Your task to perform on an android device: Go to privacy settings Image 0: 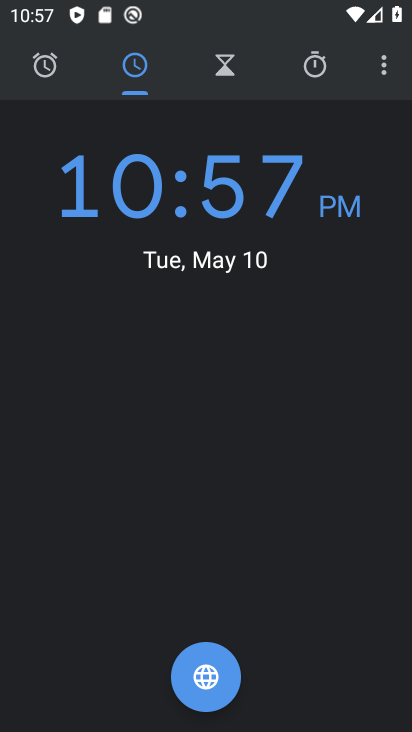
Step 0: press home button
Your task to perform on an android device: Go to privacy settings Image 1: 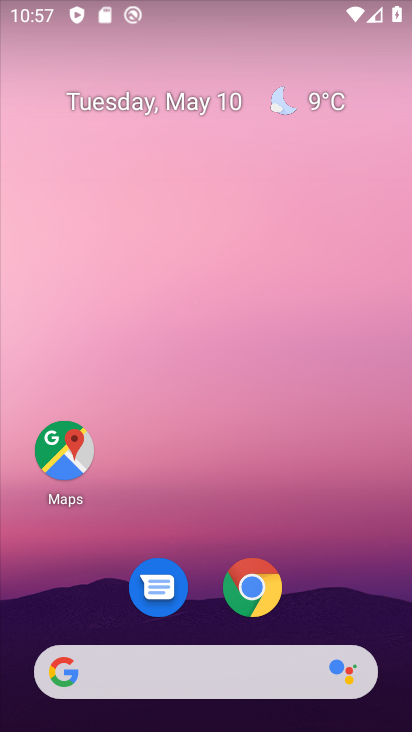
Step 1: drag from (357, 610) to (386, 23)
Your task to perform on an android device: Go to privacy settings Image 2: 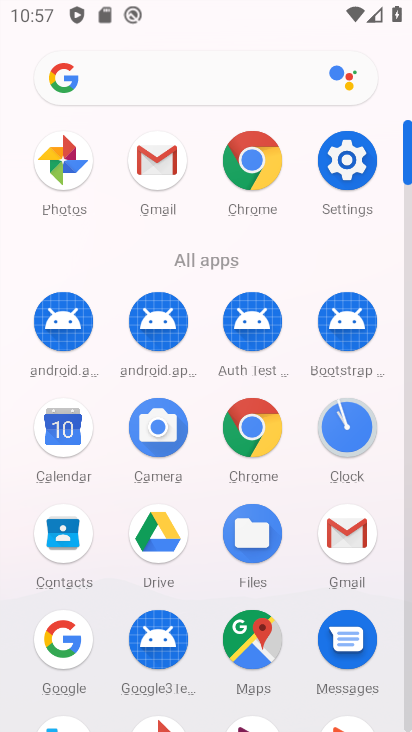
Step 2: click (351, 163)
Your task to perform on an android device: Go to privacy settings Image 3: 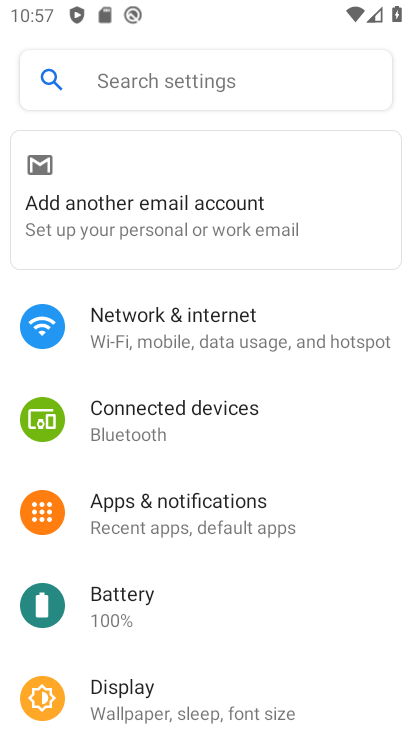
Step 3: drag from (218, 606) to (218, 277)
Your task to perform on an android device: Go to privacy settings Image 4: 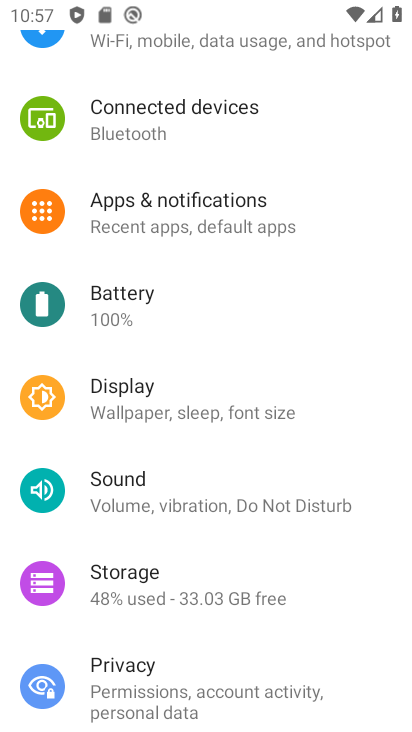
Step 4: click (126, 682)
Your task to perform on an android device: Go to privacy settings Image 5: 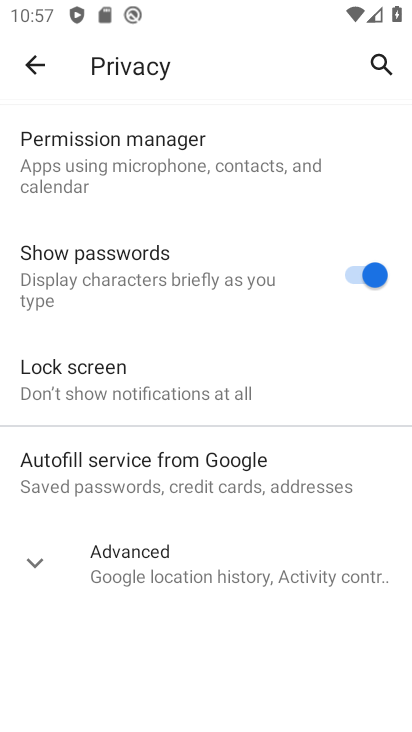
Step 5: task complete